Your task to perform on an android device: turn smart compose on in the gmail app Image 0: 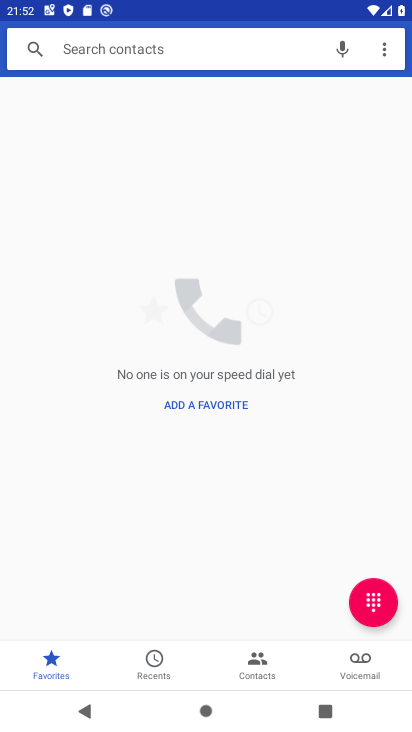
Step 0: press back button
Your task to perform on an android device: turn smart compose on in the gmail app Image 1: 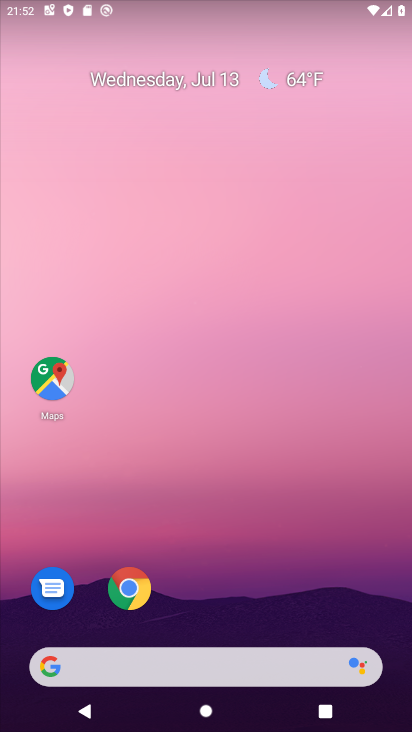
Step 1: drag from (255, 587) to (309, 9)
Your task to perform on an android device: turn smart compose on in the gmail app Image 2: 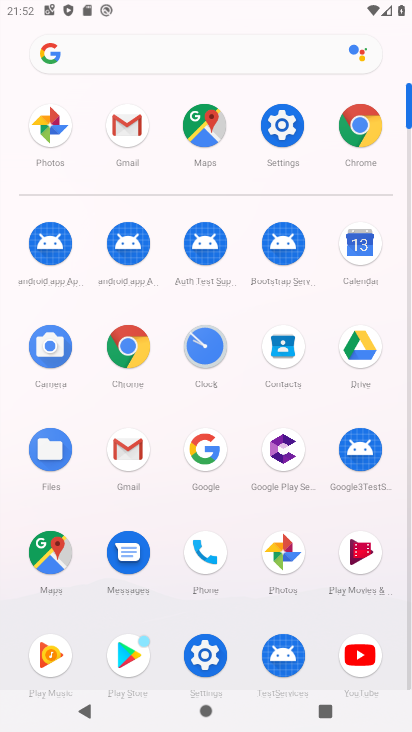
Step 2: click (119, 134)
Your task to perform on an android device: turn smart compose on in the gmail app Image 3: 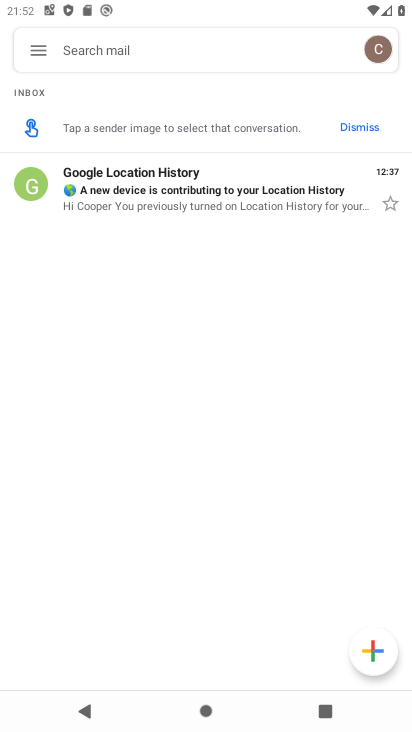
Step 3: click (44, 41)
Your task to perform on an android device: turn smart compose on in the gmail app Image 4: 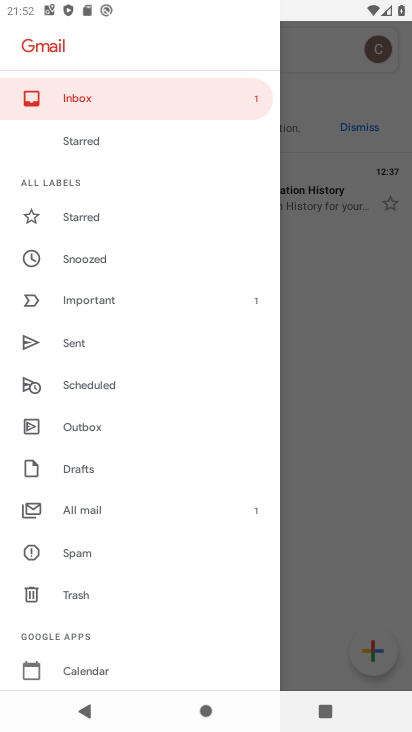
Step 4: drag from (117, 644) to (179, 145)
Your task to perform on an android device: turn smart compose on in the gmail app Image 5: 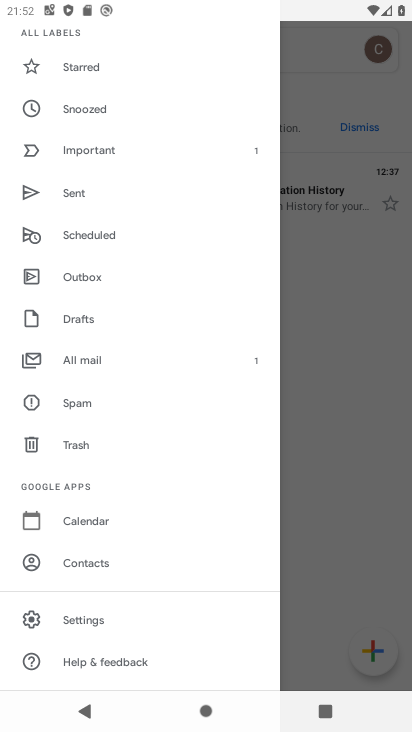
Step 5: click (76, 617)
Your task to perform on an android device: turn smart compose on in the gmail app Image 6: 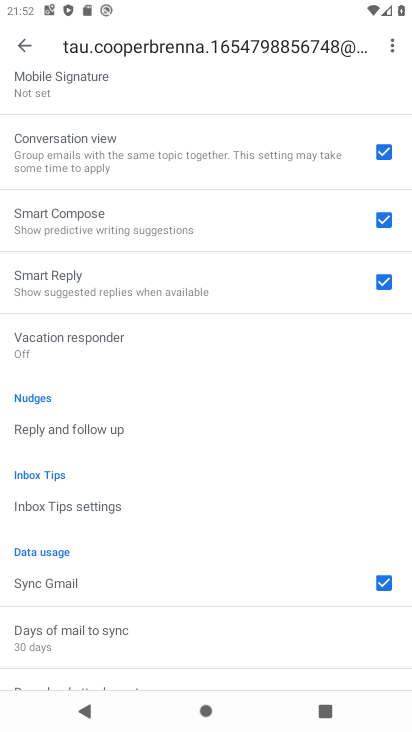
Step 6: task complete